Your task to perform on an android device: open sync settings in chrome Image 0: 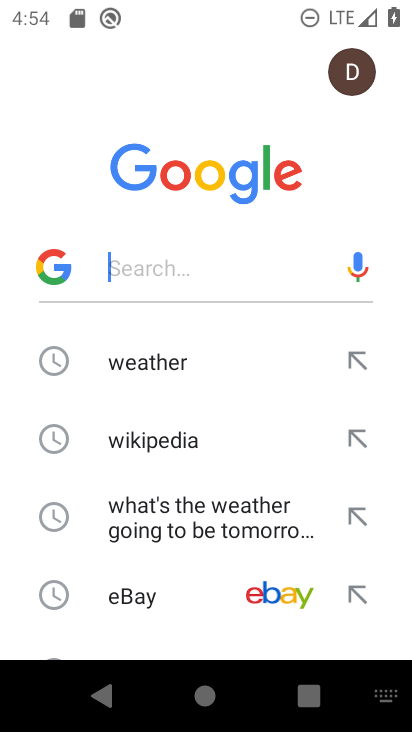
Step 0: press back button
Your task to perform on an android device: open sync settings in chrome Image 1: 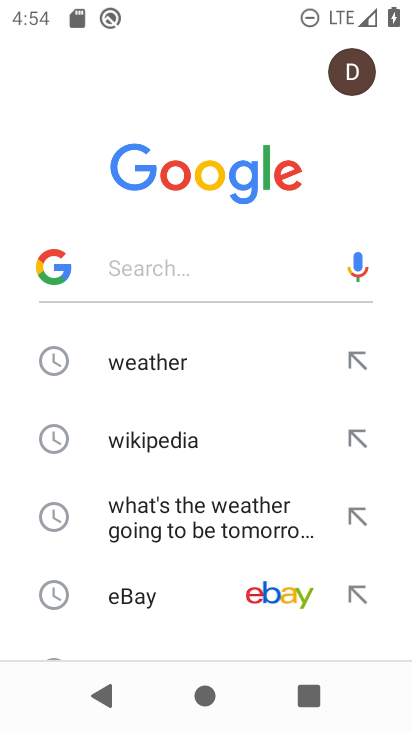
Step 1: press back button
Your task to perform on an android device: open sync settings in chrome Image 2: 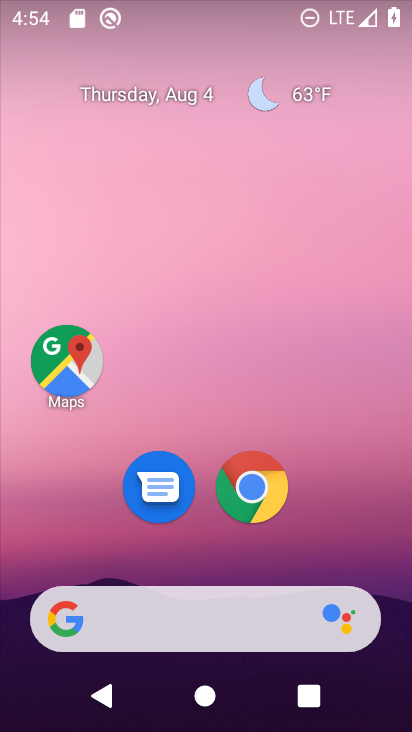
Step 2: click (267, 482)
Your task to perform on an android device: open sync settings in chrome Image 3: 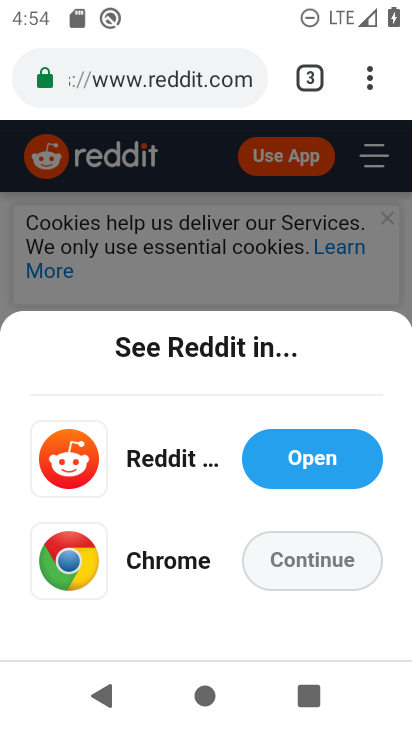
Step 3: drag from (366, 75) to (132, 547)
Your task to perform on an android device: open sync settings in chrome Image 4: 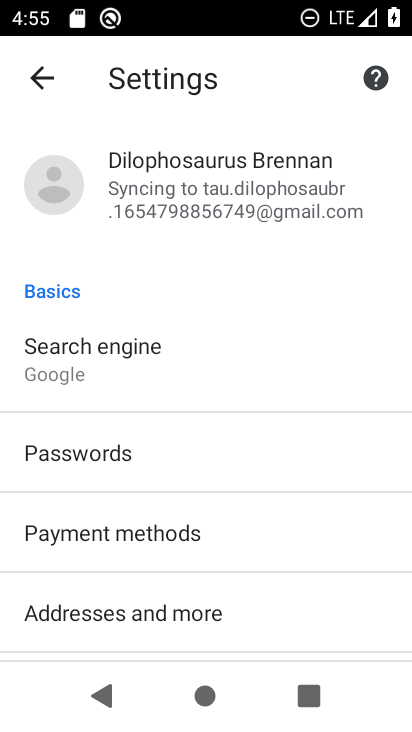
Step 4: drag from (103, 592) to (190, 58)
Your task to perform on an android device: open sync settings in chrome Image 5: 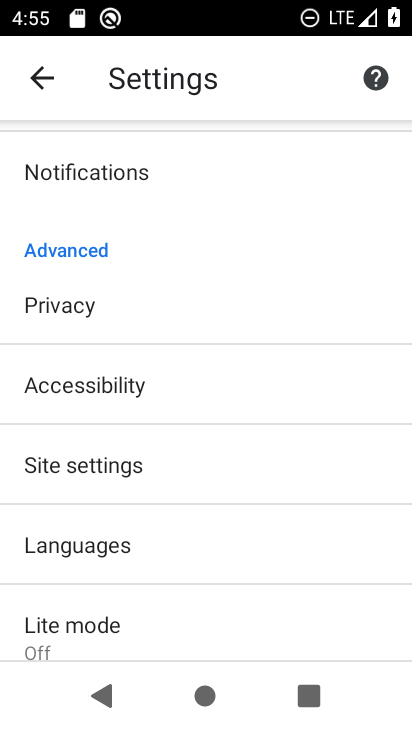
Step 5: click (129, 465)
Your task to perform on an android device: open sync settings in chrome Image 6: 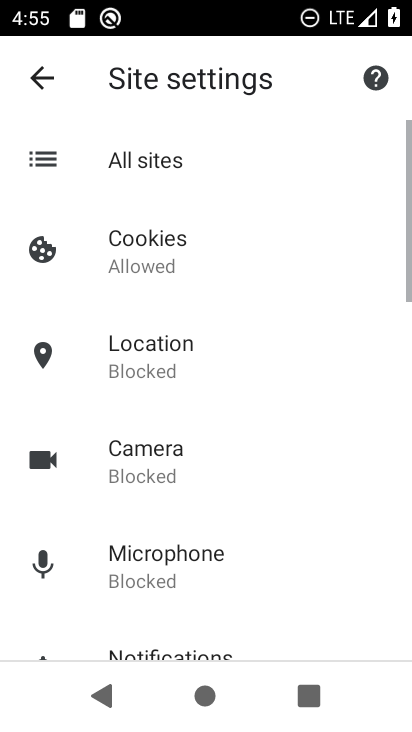
Step 6: drag from (124, 605) to (219, 83)
Your task to perform on an android device: open sync settings in chrome Image 7: 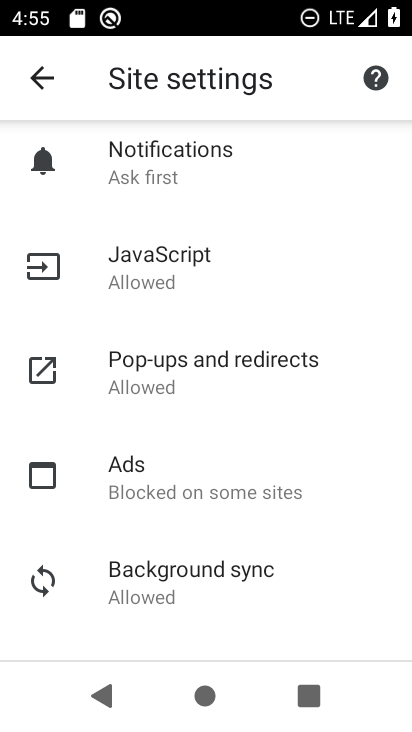
Step 7: click (188, 573)
Your task to perform on an android device: open sync settings in chrome Image 8: 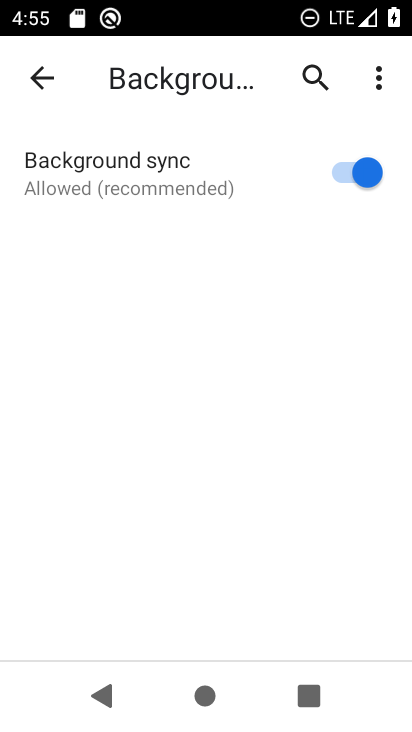
Step 8: task complete